Your task to perform on an android device: turn on javascript in the chrome app Image 0: 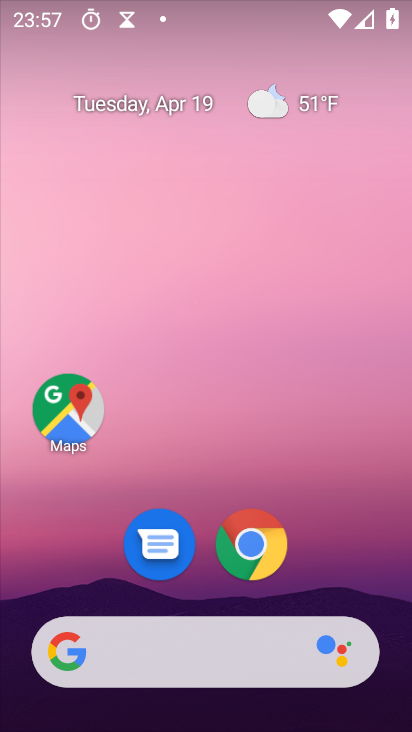
Step 0: click (252, 549)
Your task to perform on an android device: turn on javascript in the chrome app Image 1: 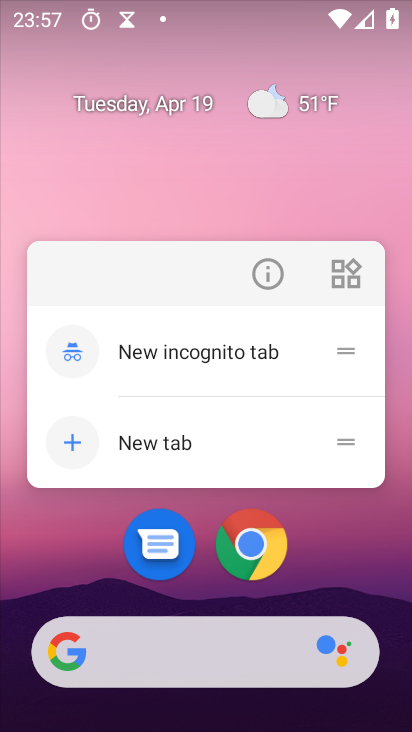
Step 1: click (252, 549)
Your task to perform on an android device: turn on javascript in the chrome app Image 2: 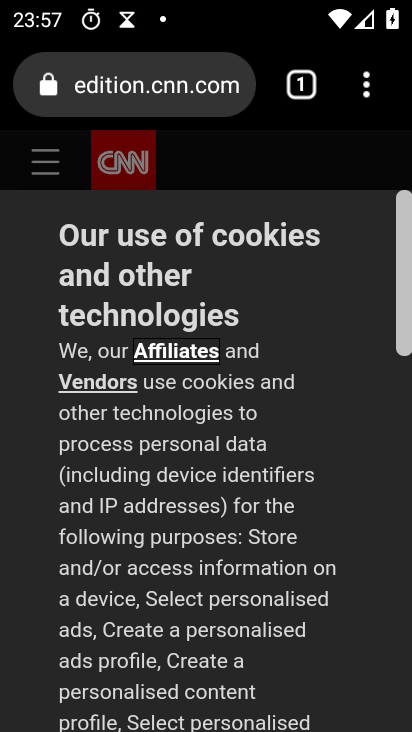
Step 2: click (366, 77)
Your task to perform on an android device: turn on javascript in the chrome app Image 3: 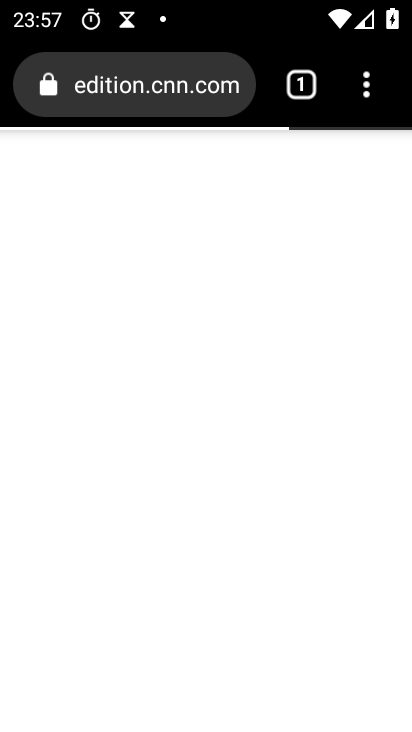
Step 3: click (366, 77)
Your task to perform on an android device: turn on javascript in the chrome app Image 4: 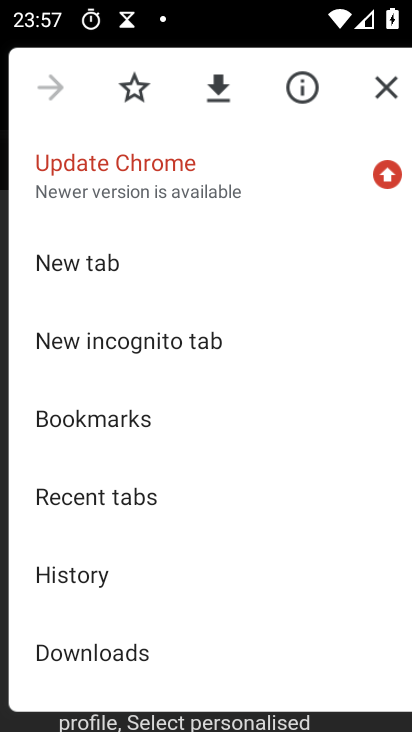
Step 4: drag from (119, 494) to (179, 322)
Your task to perform on an android device: turn on javascript in the chrome app Image 5: 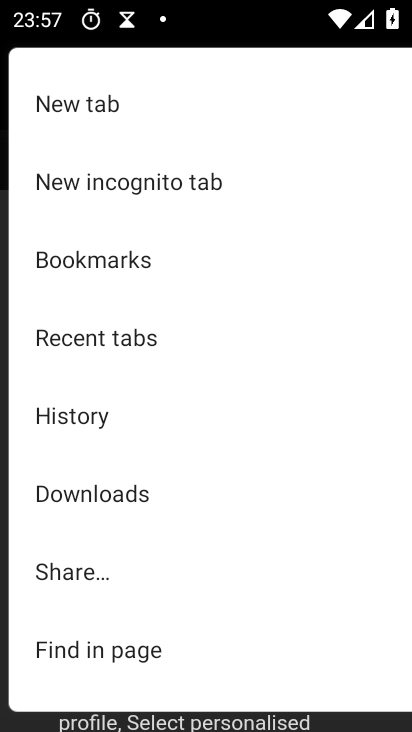
Step 5: drag from (201, 610) to (228, 501)
Your task to perform on an android device: turn on javascript in the chrome app Image 6: 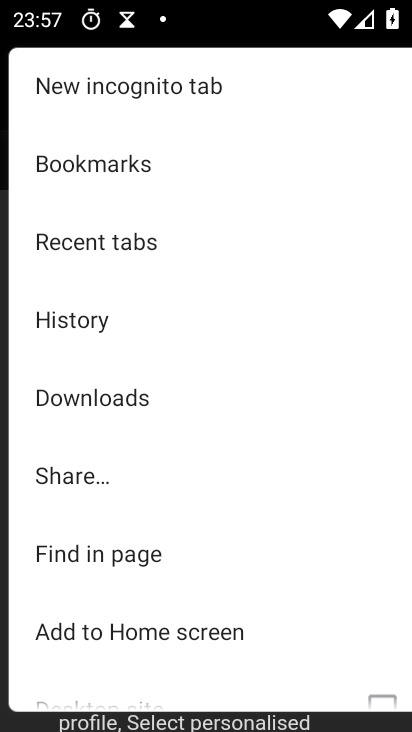
Step 6: drag from (171, 595) to (175, 468)
Your task to perform on an android device: turn on javascript in the chrome app Image 7: 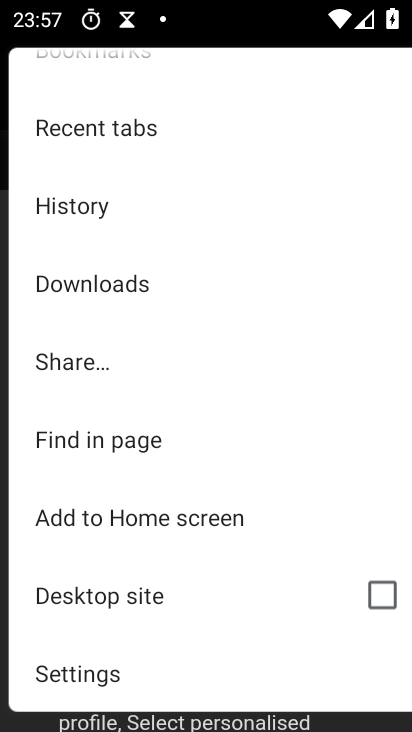
Step 7: click (124, 662)
Your task to perform on an android device: turn on javascript in the chrome app Image 8: 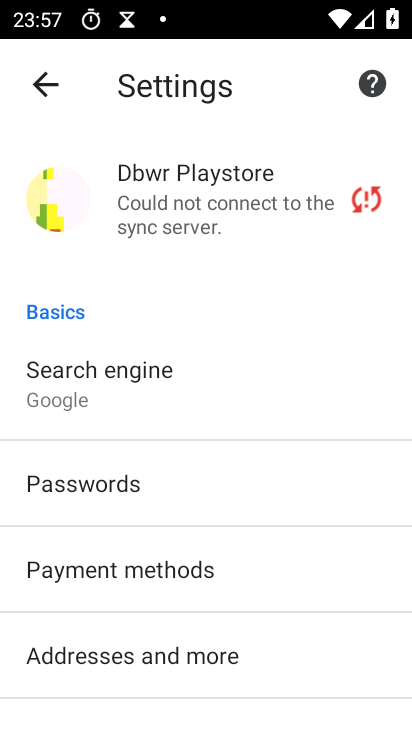
Step 8: drag from (120, 651) to (181, 515)
Your task to perform on an android device: turn on javascript in the chrome app Image 9: 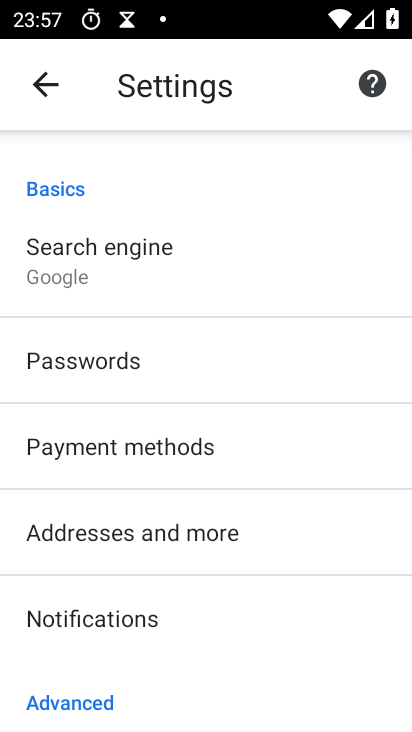
Step 9: drag from (170, 640) to (181, 541)
Your task to perform on an android device: turn on javascript in the chrome app Image 10: 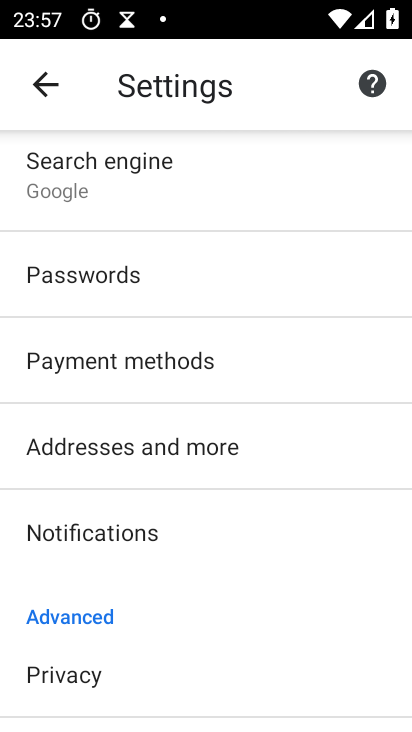
Step 10: drag from (155, 627) to (191, 523)
Your task to perform on an android device: turn on javascript in the chrome app Image 11: 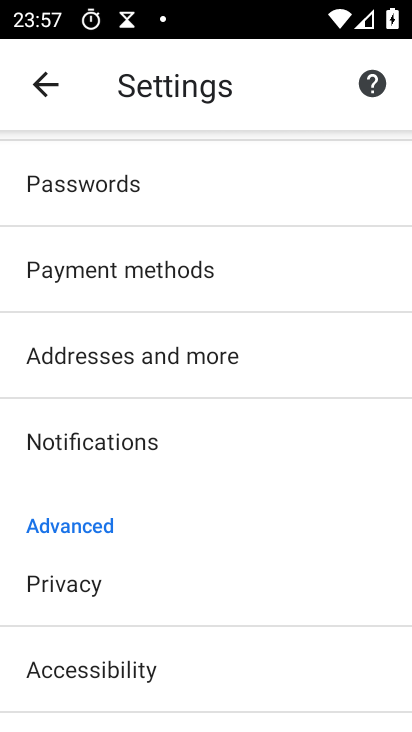
Step 11: drag from (162, 595) to (178, 484)
Your task to perform on an android device: turn on javascript in the chrome app Image 12: 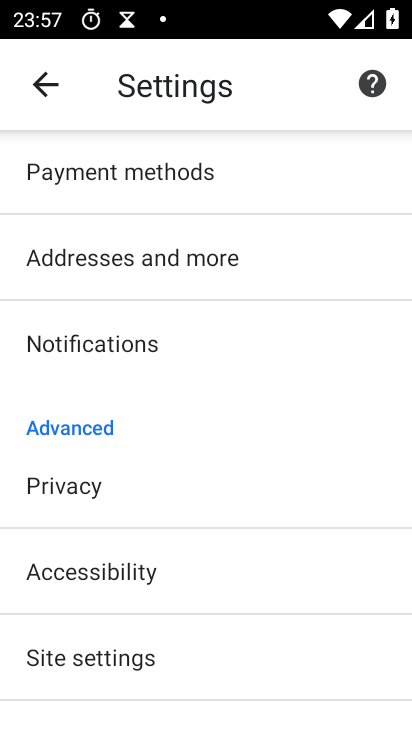
Step 12: drag from (168, 595) to (204, 468)
Your task to perform on an android device: turn on javascript in the chrome app Image 13: 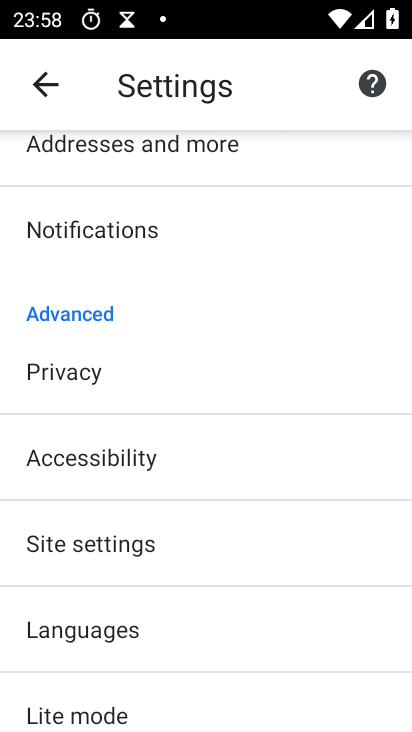
Step 13: drag from (155, 652) to (179, 522)
Your task to perform on an android device: turn on javascript in the chrome app Image 14: 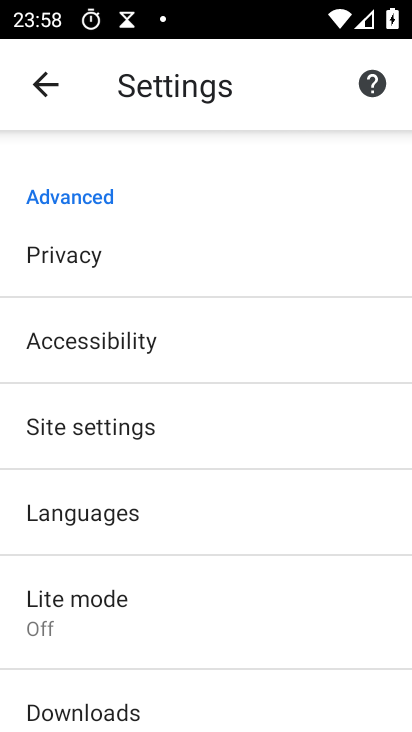
Step 14: click (125, 439)
Your task to perform on an android device: turn on javascript in the chrome app Image 15: 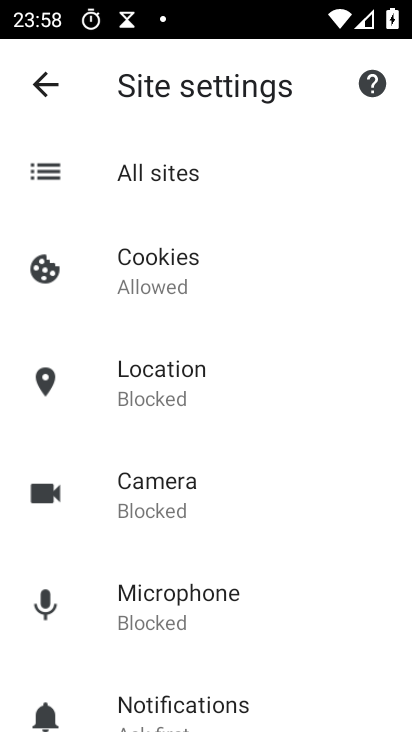
Step 15: drag from (147, 558) to (173, 448)
Your task to perform on an android device: turn on javascript in the chrome app Image 16: 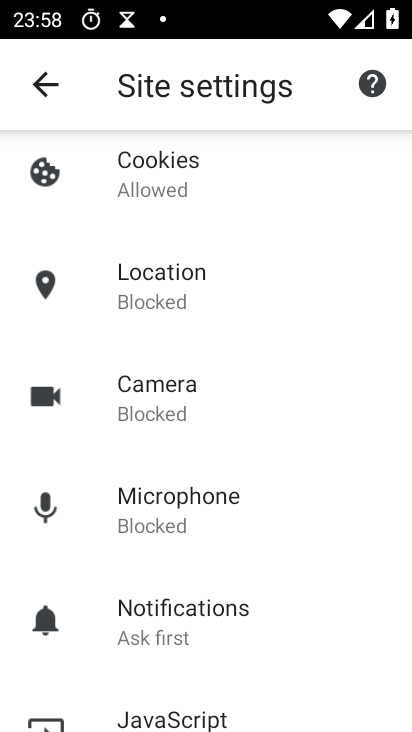
Step 16: drag from (147, 605) to (175, 509)
Your task to perform on an android device: turn on javascript in the chrome app Image 17: 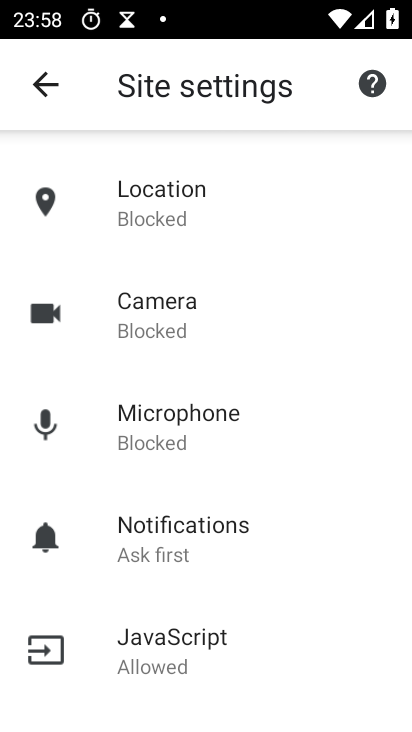
Step 17: click (163, 635)
Your task to perform on an android device: turn on javascript in the chrome app Image 18: 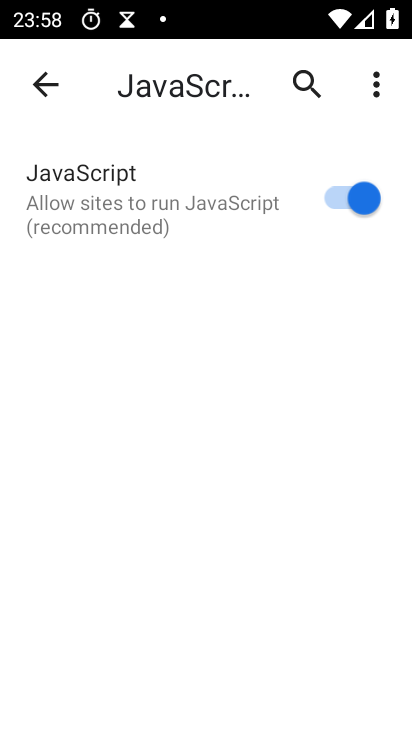
Step 18: task complete